Your task to perform on an android device: Go to location settings Image 0: 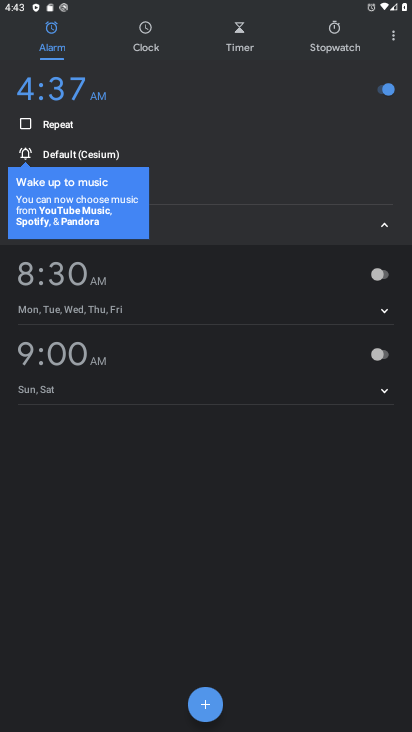
Step 0: press home button
Your task to perform on an android device: Go to location settings Image 1: 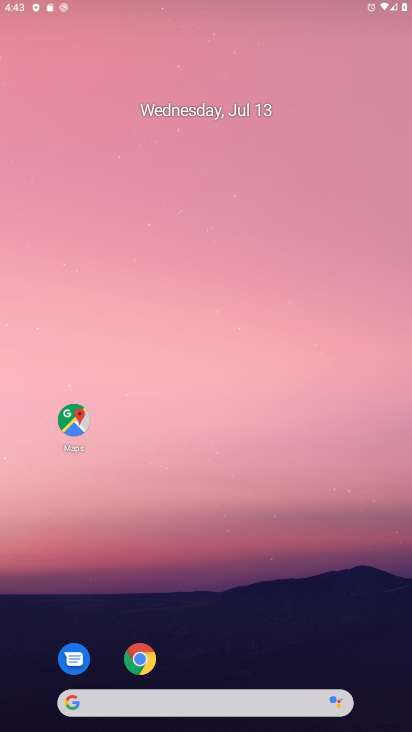
Step 1: drag from (246, 596) to (174, 35)
Your task to perform on an android device: Go to location settings Image 2: 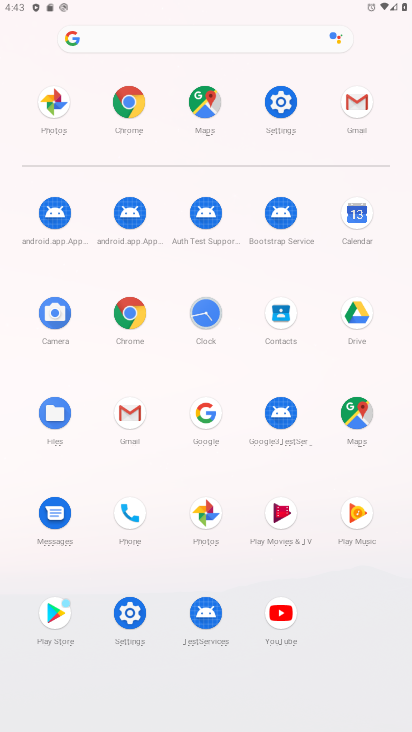
Step 2: click (284, 108)
Your task to perform on an android device: Go to location settings Image 3: 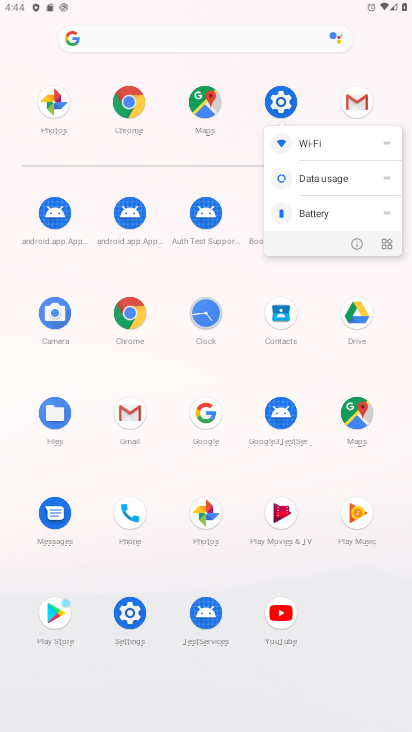
Step 3: click (284, 107)
Your task to perform on an android device: Go to location settings Image 4: 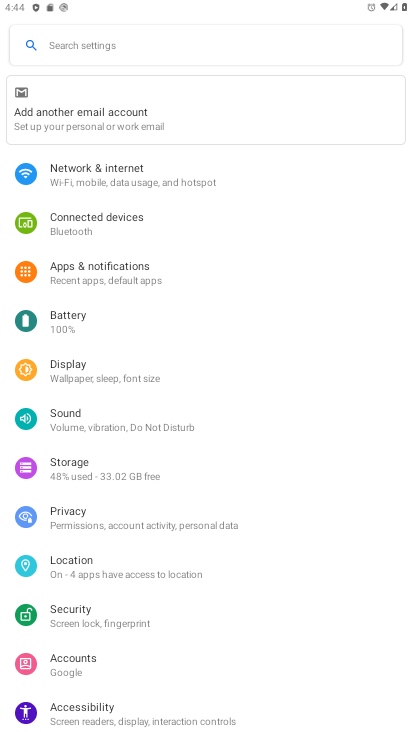
Step 4: click (123, 564)
Your task to perform on an android device: Go to location settings Image 5: 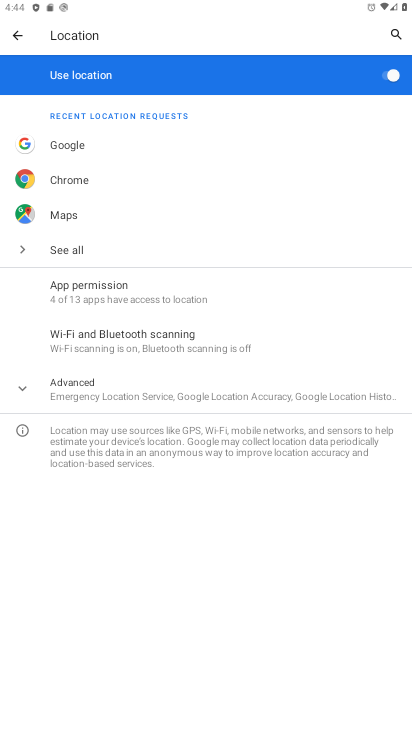
Step 5: task complete